Your task to perform on an android device: uninstall "Reddit" Image 0: 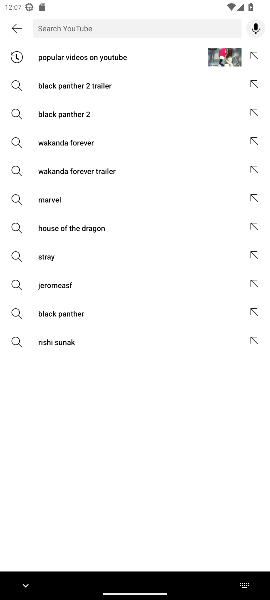
Step 0: press home button
Your task to perform on an android device: uninstall "Reddit" Image 1: 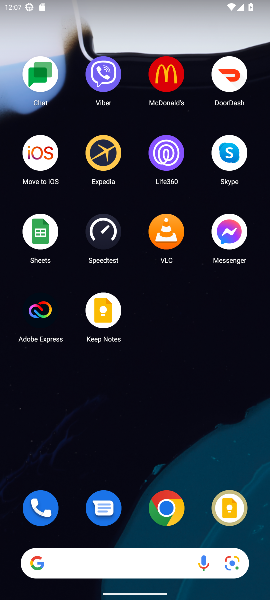
Step 1: drag from (167, 521) to (196, 157)
Your task to perform on an android device: uninstall "Reddit" Image 2: 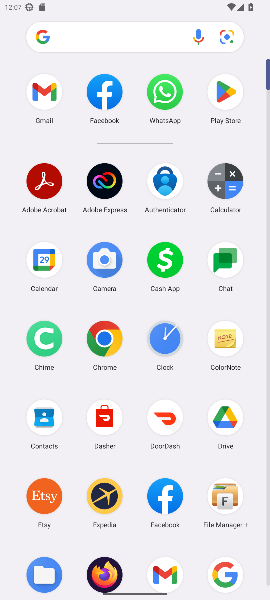
Step 2: click (231, 88)
Your task to perform on an android device: uninstall "Reddit" Image 3: 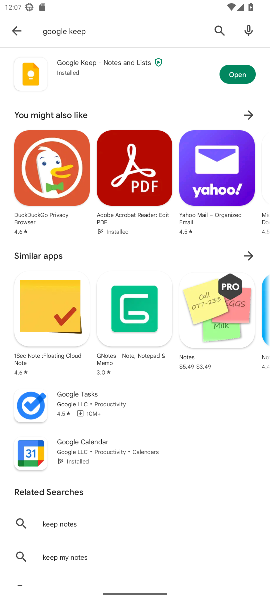
Step 3: click (224, 30)
Your task to perform on an android device: uninstall "Reddit" Image 4: 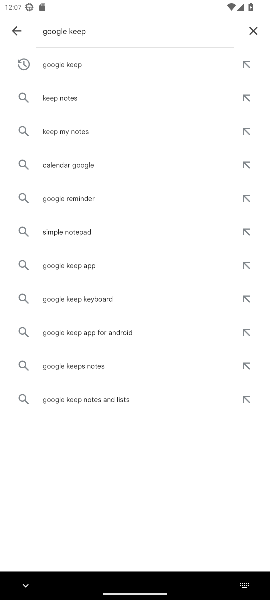
Step 4: click (251, 30)
Your task to perform on an android device: uninstall "Reddit" Image 5: 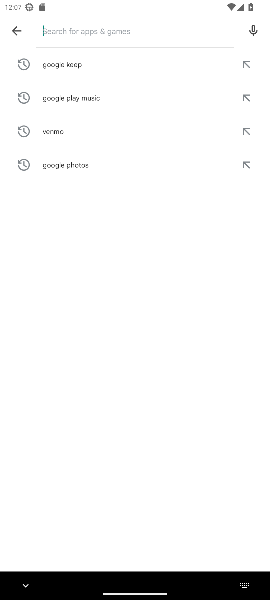
Step 5: type "reddit"
Your task to perform on an android device: uninstall "Reddit" Image 6: 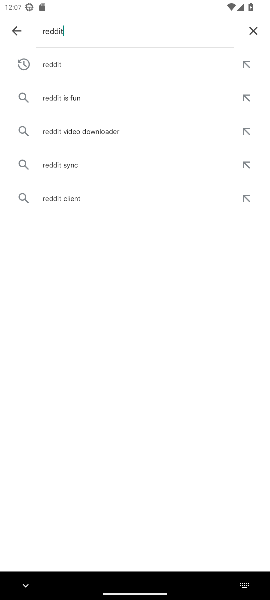
Step 6: click (55, 59)
Your task to perform on an android device: uninstall "Reddit" Image 7: 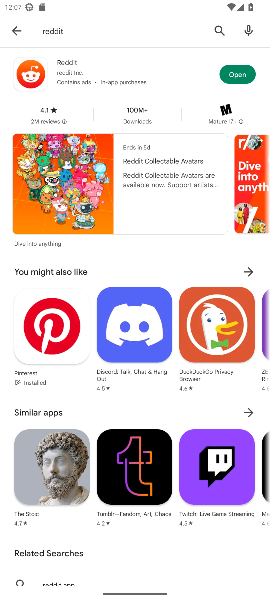
Step 7: task complete